Your task to perform on an android device: Turn off the flashlight Image 0: 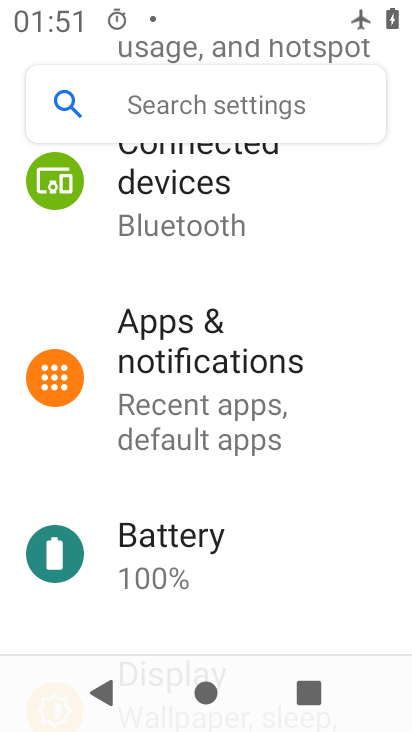
Step 0: press home button
Your task to perform on an android device: Turn off the flashlight Image 1: 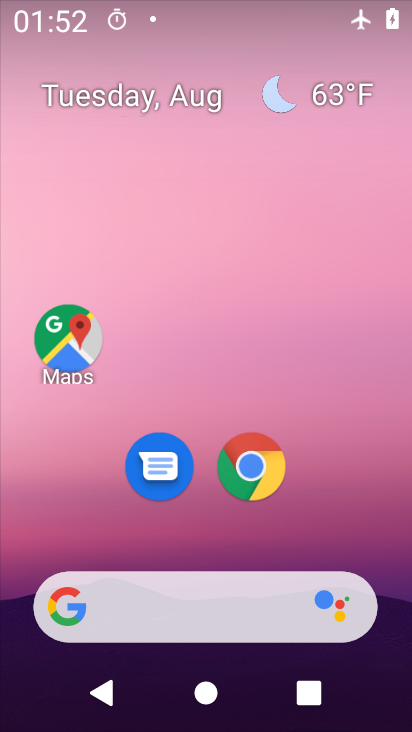
Step 1: drag from (241, 5) to (221, 402)
Your task to perform on an android device: Turn off the flashlight Image 2: 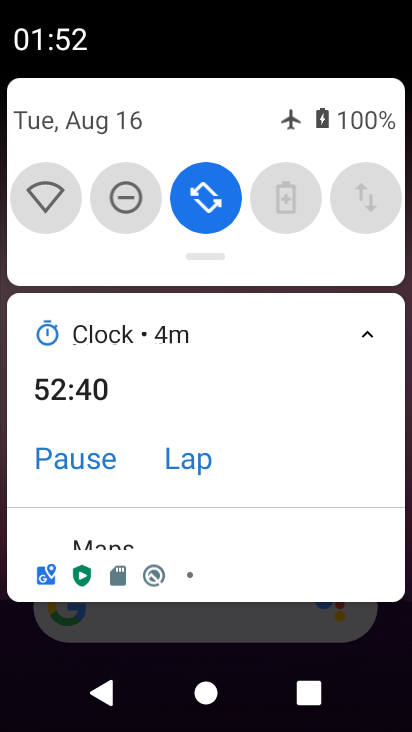
Step 2: drag from (247, 113) to (256, 347)
Your task to perform on an android device: Turn off the flashlight Image 3: 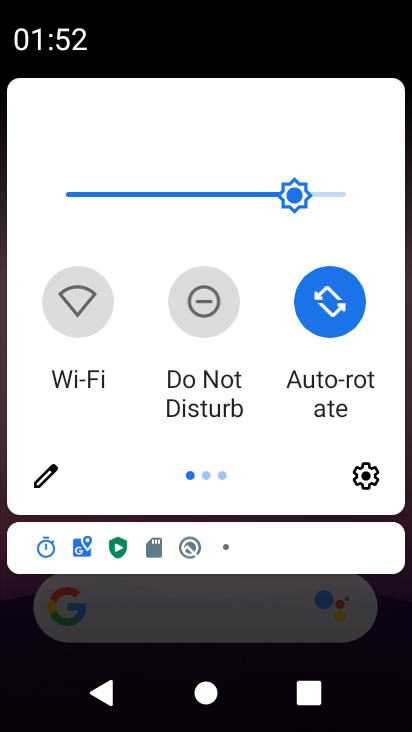
Step 3: click (49, 482)
Your task to perform on an android device: Turn off the flashlight Image 4: 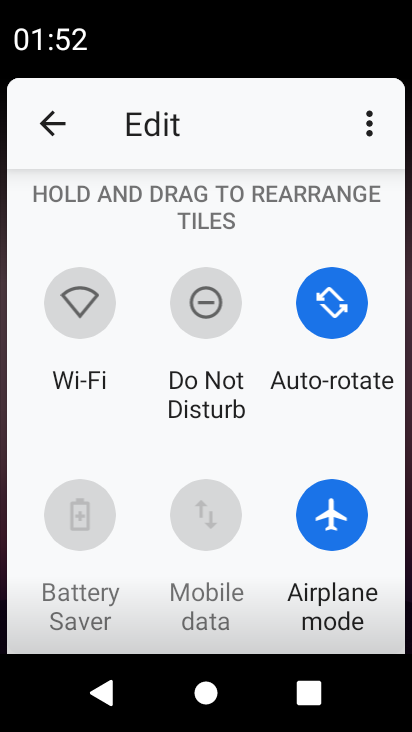
Step 4: task complete